Your task to perform on an android device: snooze an email in the gmail app Image 0: 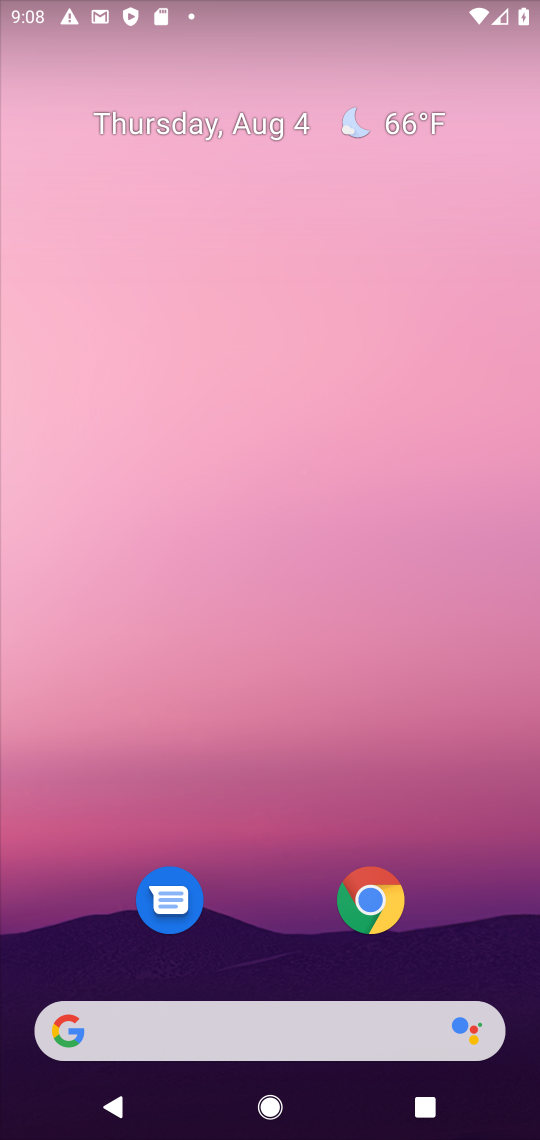
Step 0: drag from (274, 1010) to (191, 732)
Your task to perform on an android device: snooze an email in the gmail app Image 1: 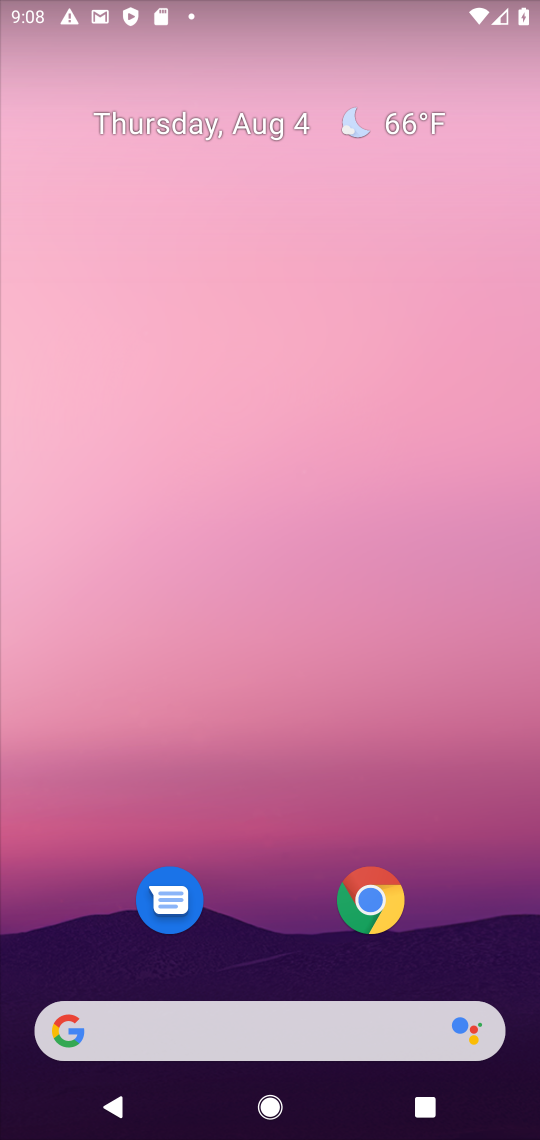
Step 1: drag from (283, 964) to (374, 18)
Your task to perform on an android device: snooze an email in the gmail app Image 2: 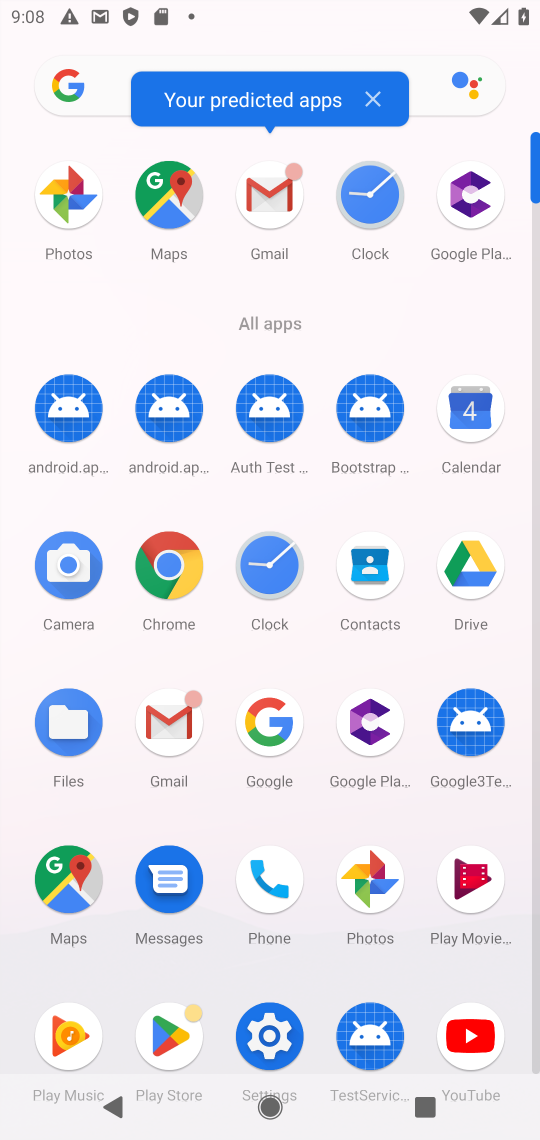
Step 2: click (183, 711)
Your task to perform on an android device: snooze an email in the gmail app Image 3: 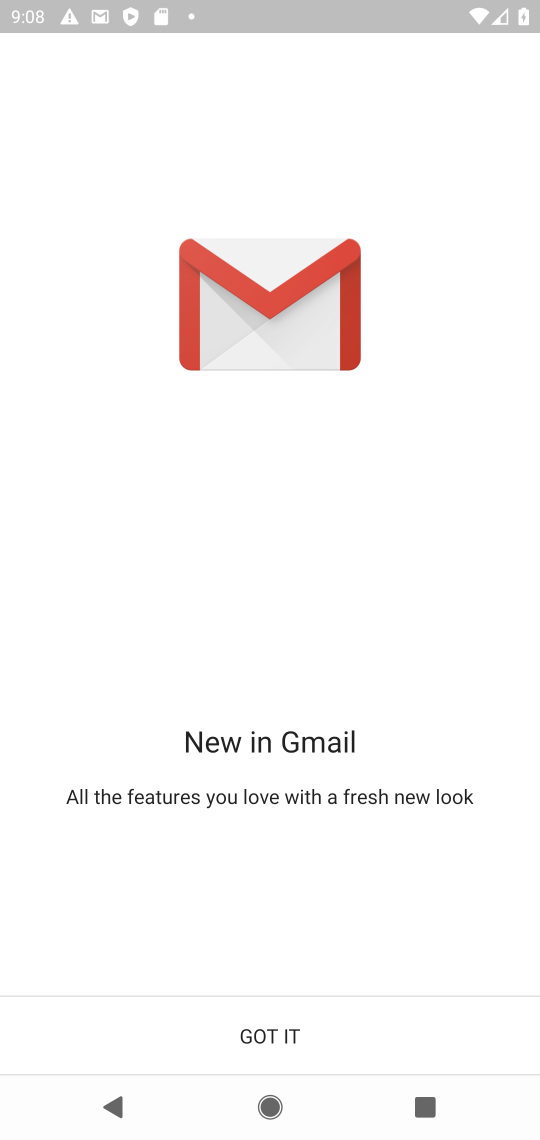
Step 3: click (263, 1020)
Your task to perform on an android device: snooze an email in the gmail app Image 4: 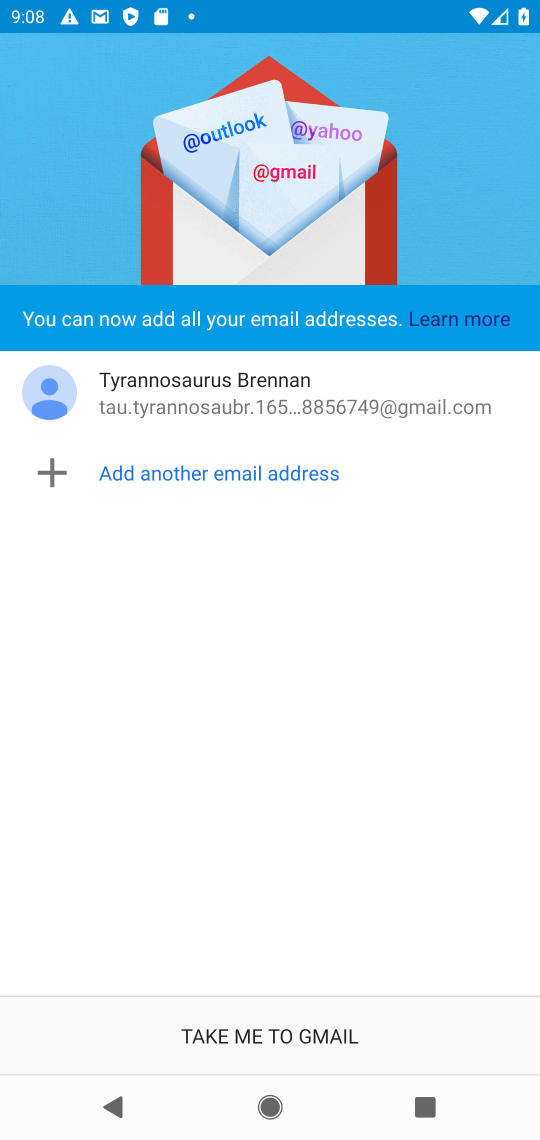
Step 4: click (263, 1020)
Your task to perform on an android device: snooze an email in the gmail app Image 5: 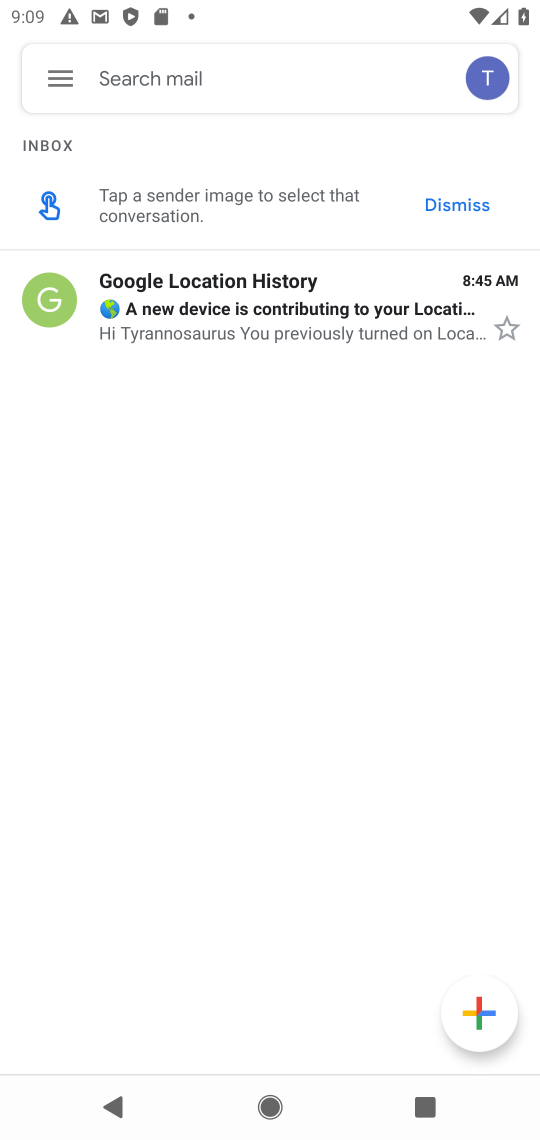
Step 5: click (335, 281)
Your task to perform on an android device: snooze an email in the gmail app Image 6: 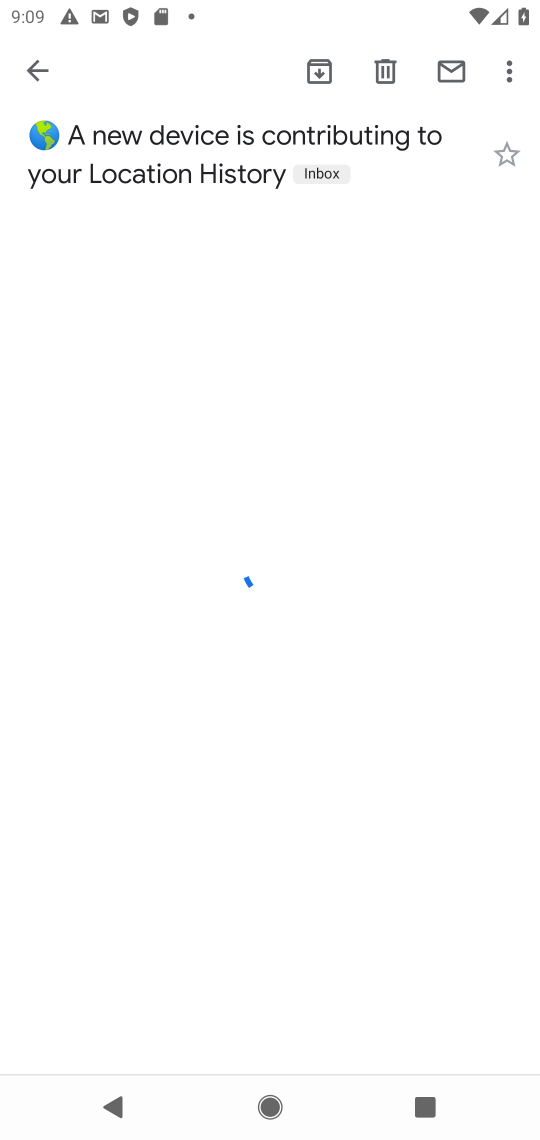
Step 6: click (514, 84)
Your task to perform on an android device: snooze an email in the gmail app Image 7: 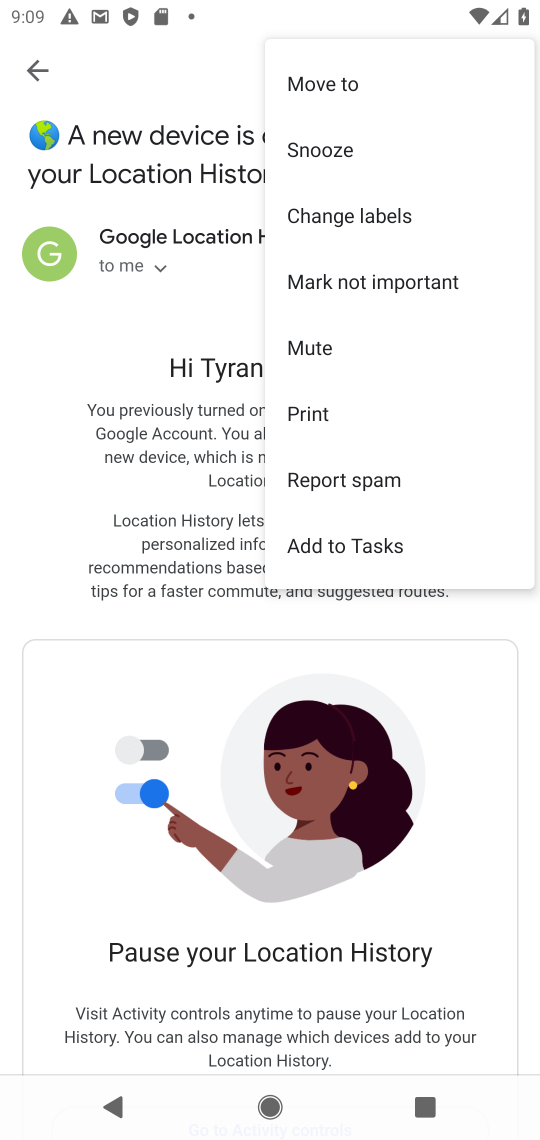
Step 7: click (341, 160)
Your task to perform on an android device: snooze an email in the gmail app Image 8: 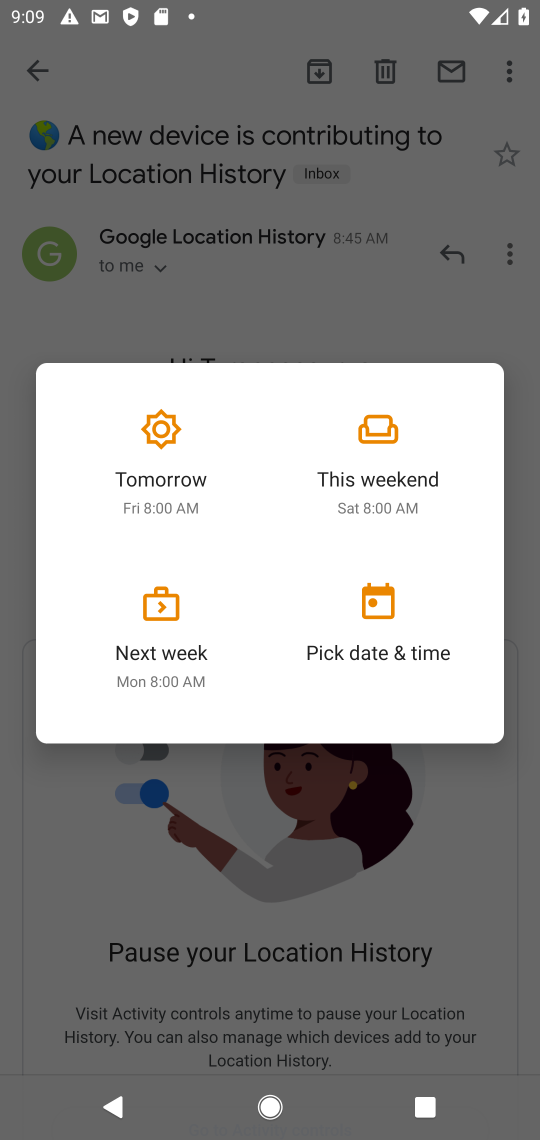
Step 8: click (387, 449)
Your task to perform on an android device: snooze an email in the gmail app Image 9: 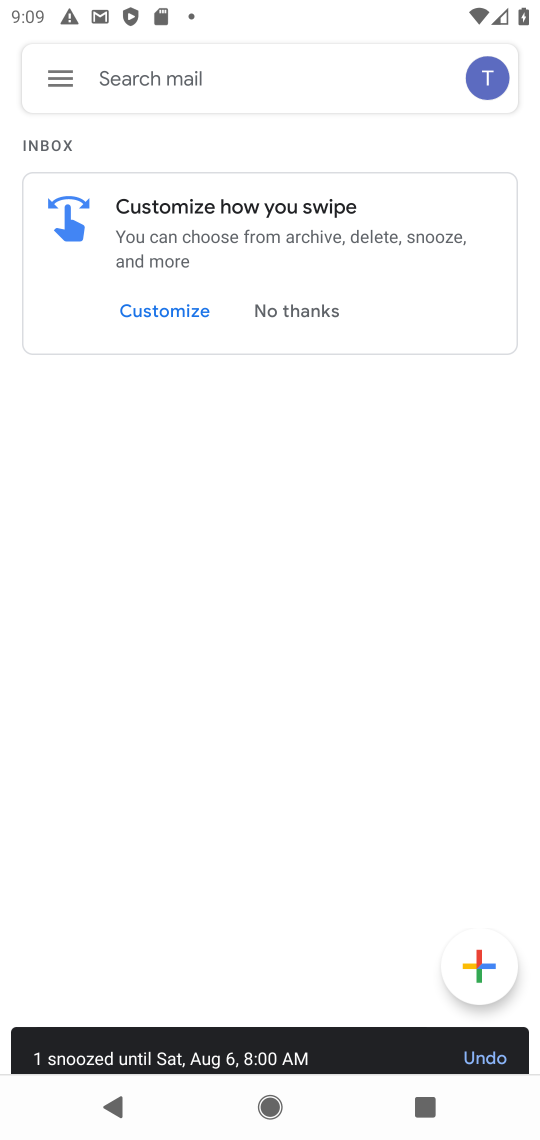
Step 9: task complete